Your task to perform on an android device: Is it going to rain tomorrow? Image 0: 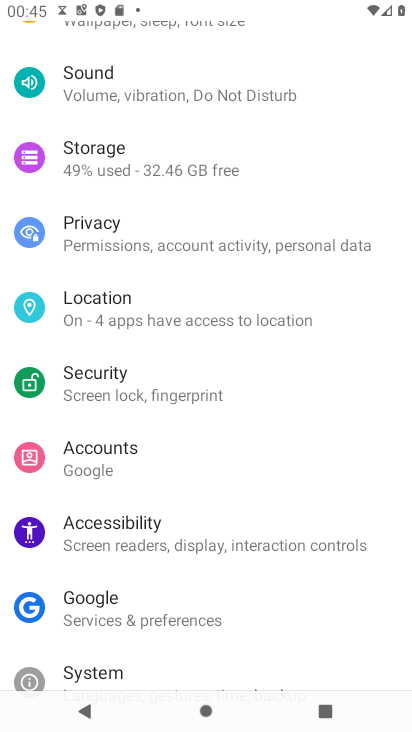
Step 0: press back button
Your task to perform on an android device: Is it going to rain tomorrow? Image 1: 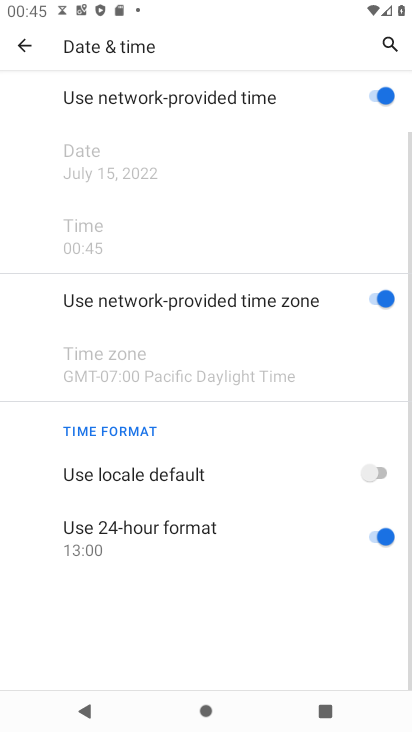
Step 1: press back button
Your task to perform on an android device: Is it going to rain tomorrow? Image 2: 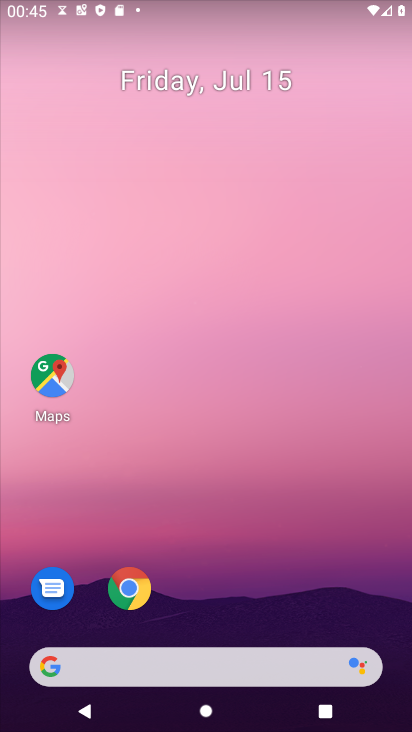
Step 2: click (158, 661)
Your task to perform on an android device: Is it going to rain tomorrow? Image 3: 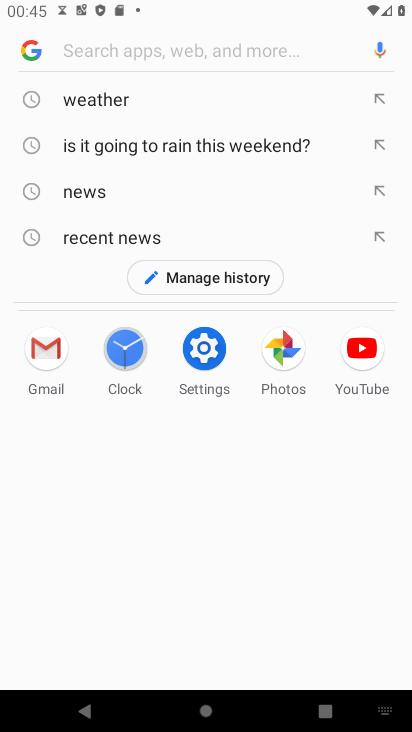
Step 3: click (120, 103)
Your task to perform on an android device: Is it going to rain tomorrow? Image 4: 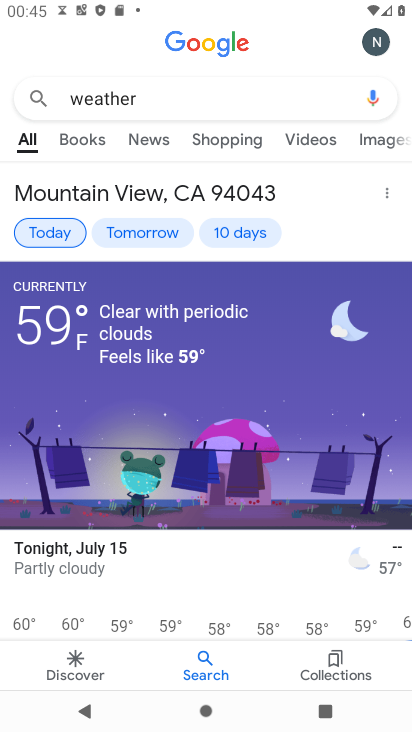
Step 4: click (138, 236)
Your task to perform on an android device: Is it going to rain tomorrow? Image 5: 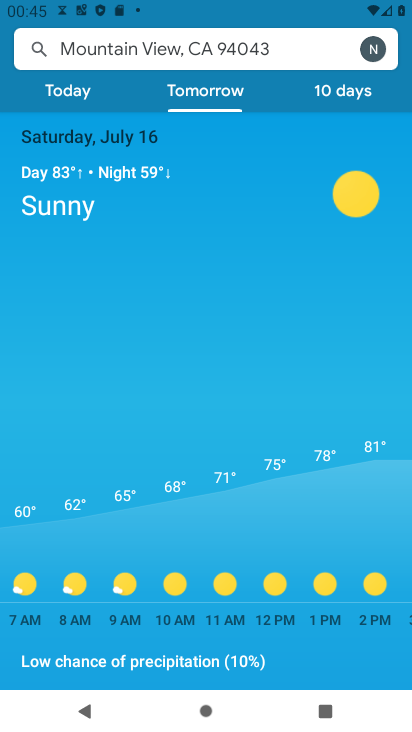
Step 5: task complete